Your task to perform on an android device: Show me popular games on the Play Store Image 0: 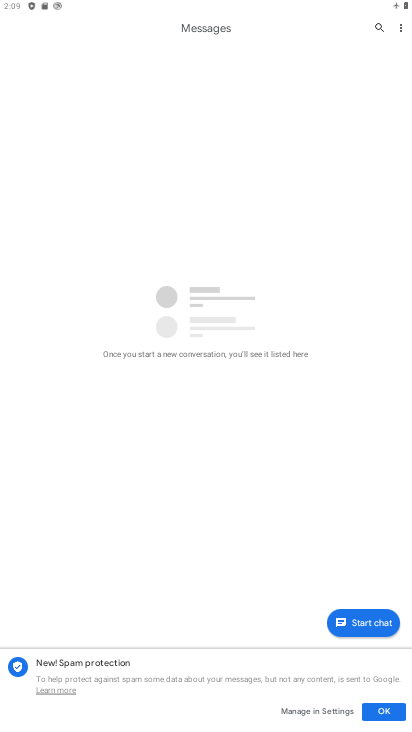
Step 0: press home button
Your task to perform on an android device: Show me popular games on the Play Store Image 1: 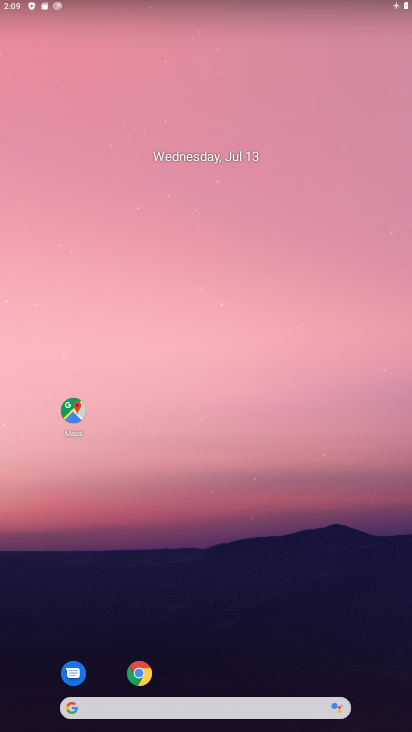
Step 1: drag from (204, 705) to (308, 140)
Your task to perform on an android device: Show me popular games on the Play Store Image 2: 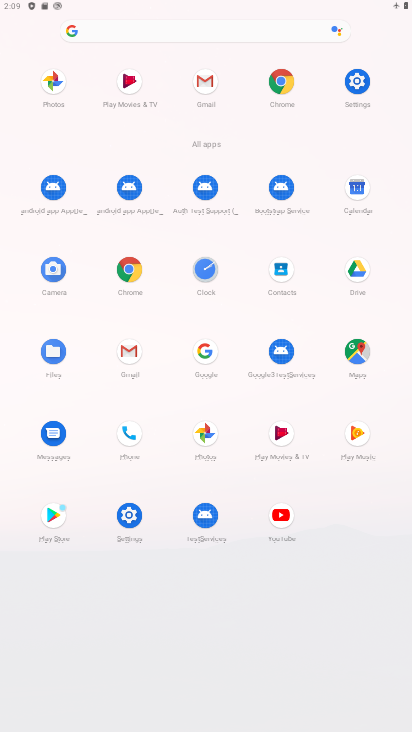
Step 2: click (50, 514)
Your task to perform on an android device: Show me popular games on the Play Store Image 3: 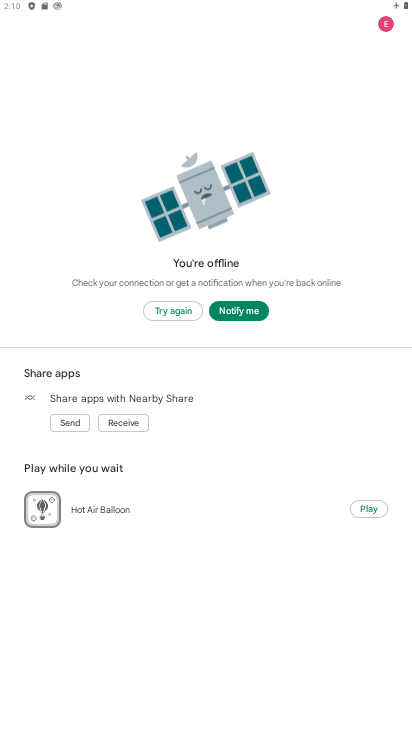
Step 3: task complete